Your task to perform on an android device: make emails show in primary in the gmail app Image 0: 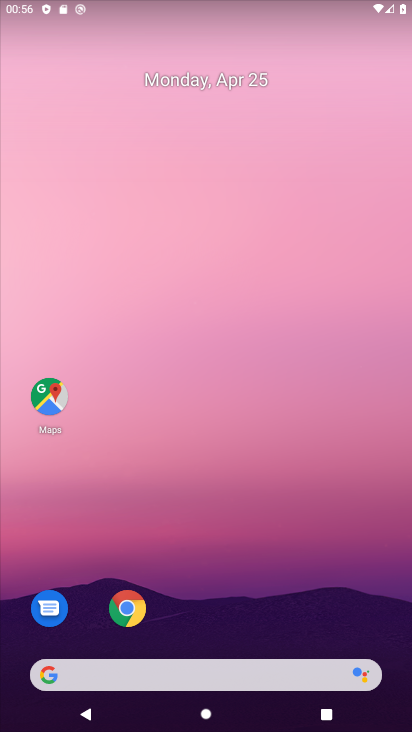
Step 0: drag from (214, 635) to (165, 145)
Your task to perform on an android device: make emails show in primary in the gmail app Image 1: 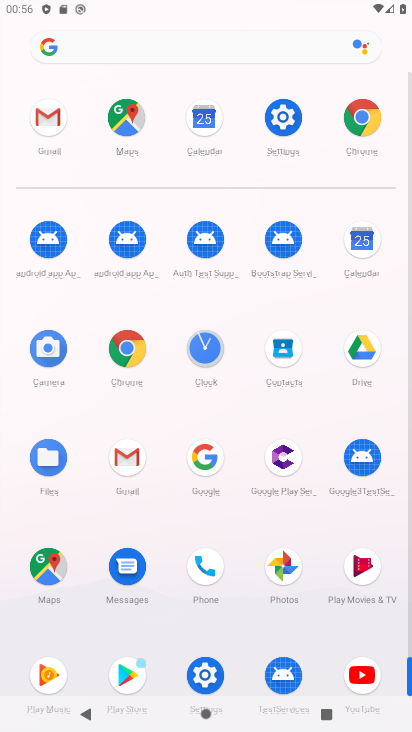
Step 1: click (53, 132)
Your task to perform on an android device: make emails show in primary in the gmail app Image 2: 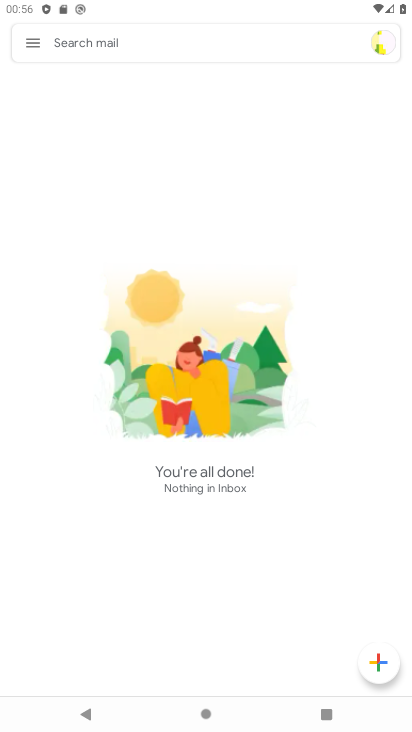
Step 2: click (34, 47)
Your task to perform on an android device: make emails show in primary in the gmail app Image 3: 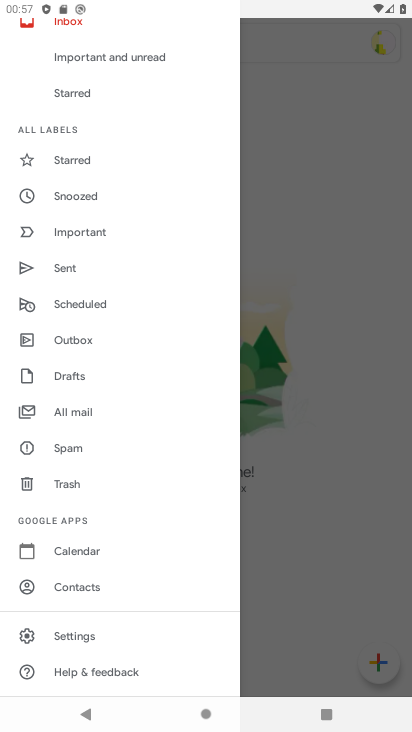
Step 3: click (139, 642)
Your task to perform on an android device: make emails show in primary in the gmail app Image 4: 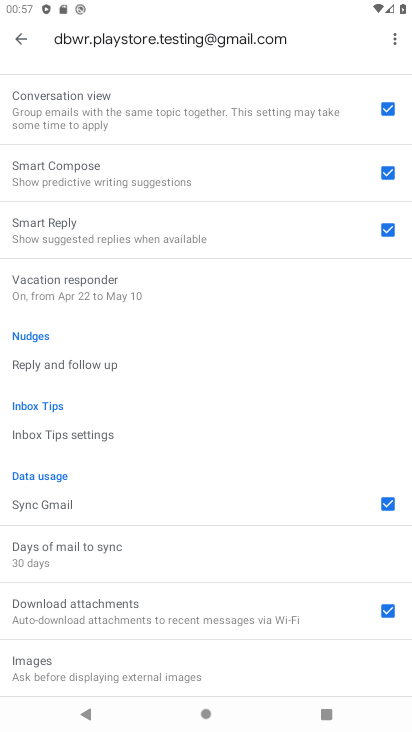
Step 4: drag from (181, 260) to (237, 728)
Your task to perform on an android device: make emails show in primary in the gmail app Image 5: 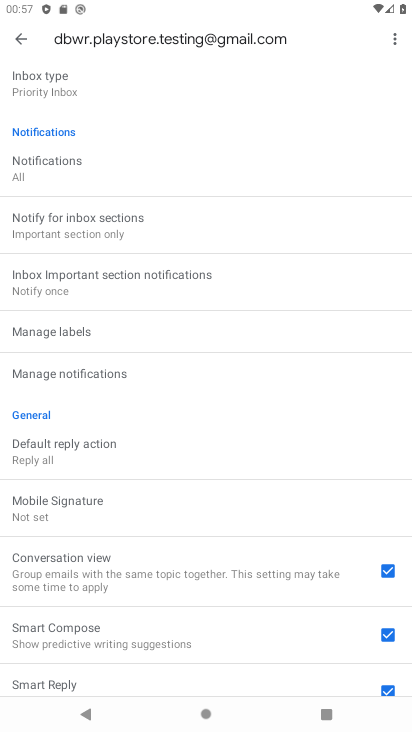
Step 5: click (117, 87)
Your task to perform on an android device: make emails show in primary in the gmail app Image 6: 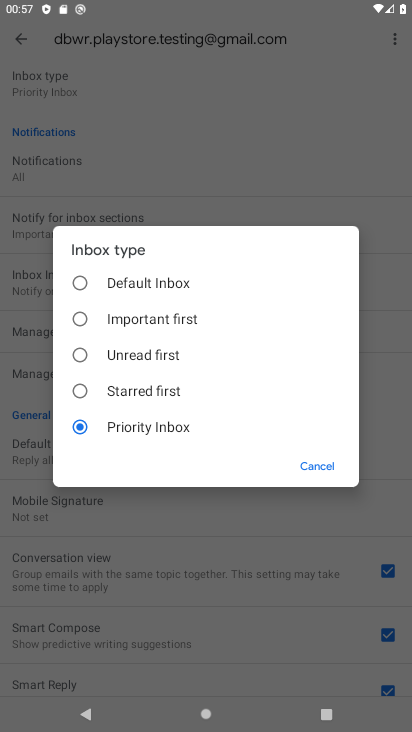
Step 6: click (161, 290)
Your task to perform on an android device: make emails show in primary in the gmail app Image 7: 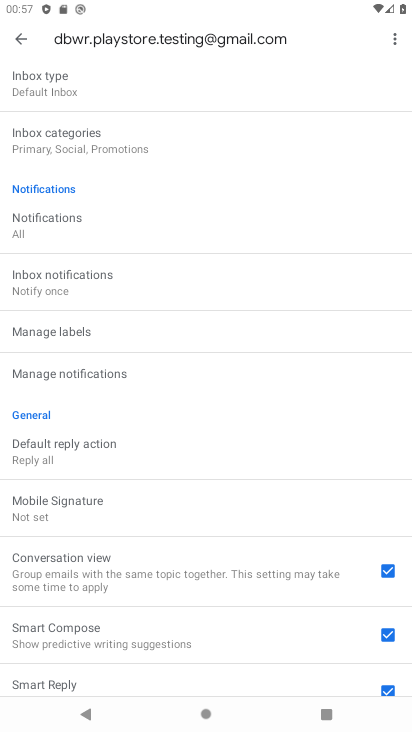
Step 7: task complete